Your task to perform on an android device: Open accessibility settings Image 0: 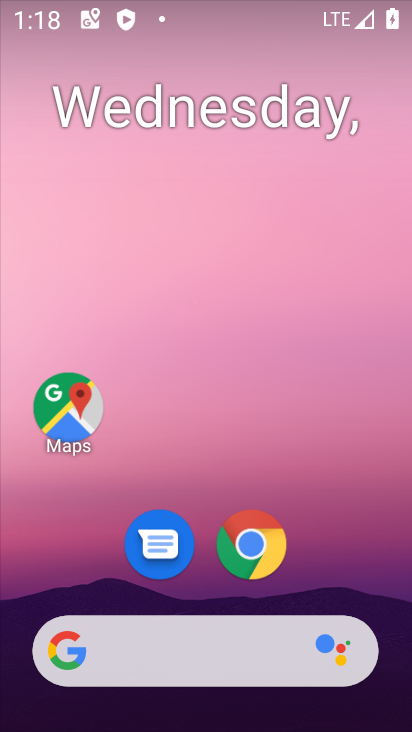
Step 0: drag from (387, 650) to (397, 9)
Your task to perform on an android device: Open accessibility settings Image 1: 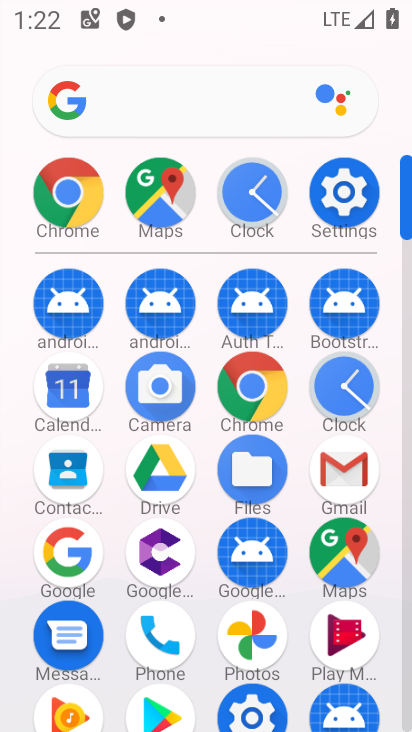
Step 1: click (274, 703)
Your task to perform on an android device: Open accessibility settings Image 2: 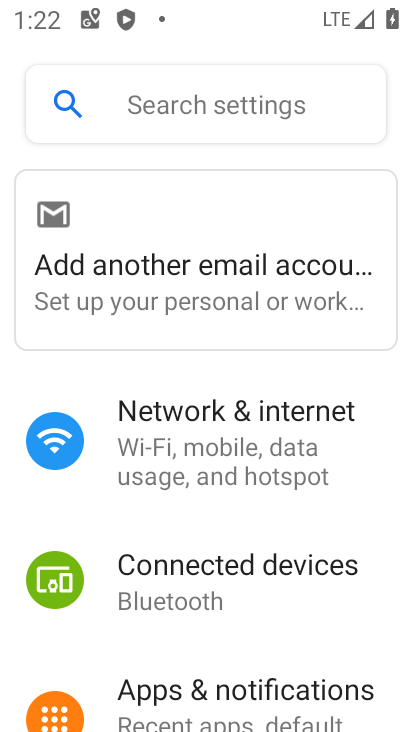
Step 2: drag from (249, 675) to (95, 0)
Your task to perform on an android device: Open accessibility settings Image 3: 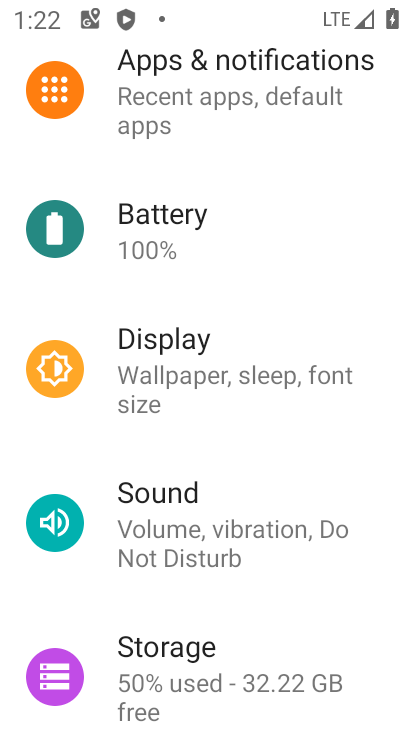
Step 3: drag from (298, 690) to (169, 82)
Your task to perform on an android device: Open accessibility settings Image 4: 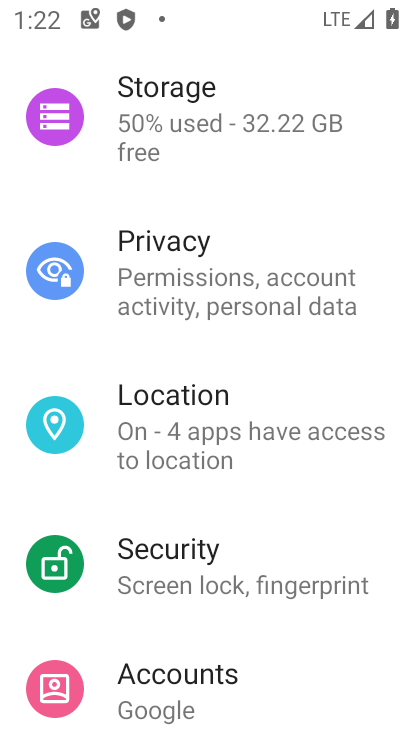
Step 4: drag from (241, 588) to (251, 191)
Your task to perform on an android device: Open accessibility settings Image 5: 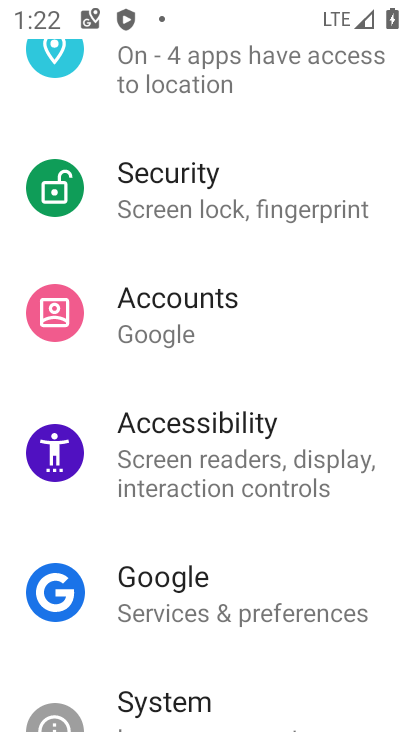
Step 5: click (247, 426)
Your task to perform on an android device: Open accessibility settings Image 6: 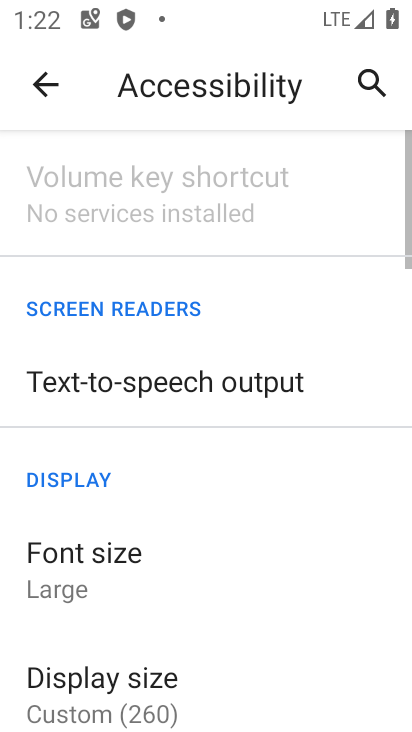
Step 6: task complete